Your task to perform on an android device: snooze an email in the gmail app Image 0: 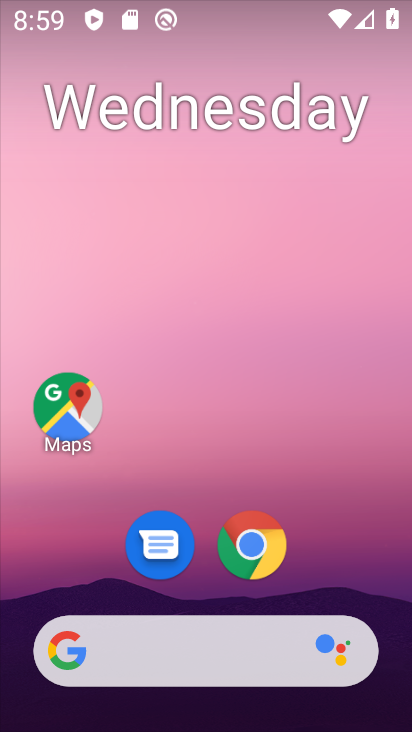
Step 0: drag from (382, 606) to (319, 128)
Your task to perform on an android device: snooze an email in the gmail app Image 1: 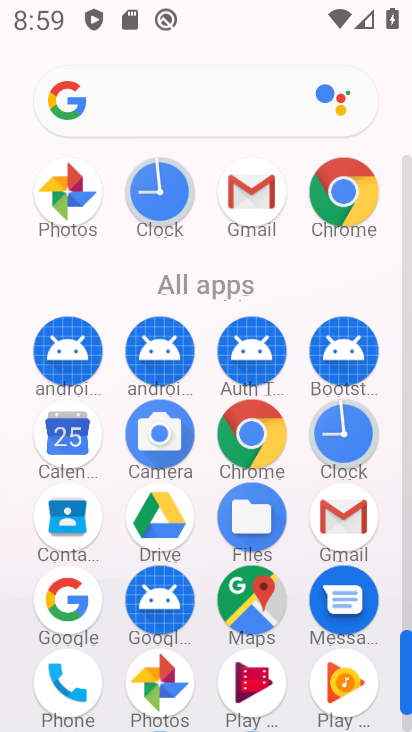
Step 1: click (263, 204)
Your task to perform on an android device: snooze an email in the gmail app Image 2: 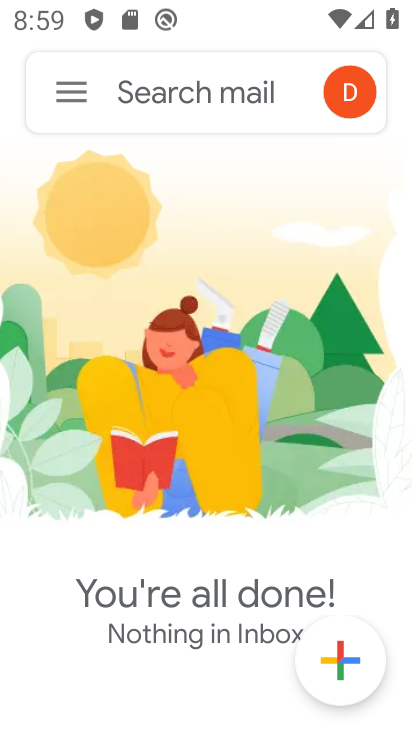
Step 2: click (69, 93)
Your task to perform on an android device: snooze an email in the gmail app Image 3: 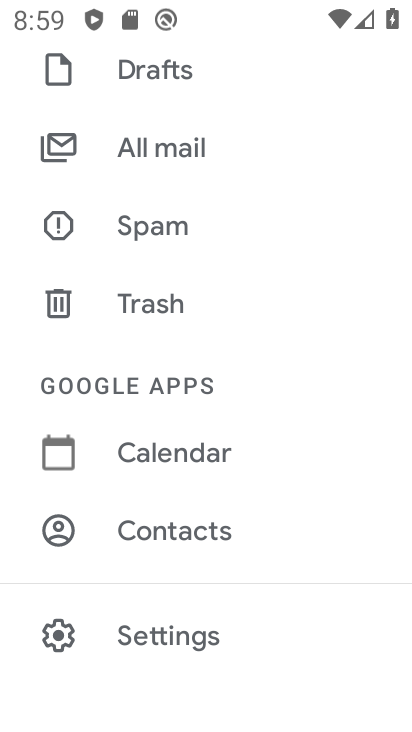
Step 3: drag from (216, 78) to (227, 607)
Your task to perform on an android device: snooze an email in the gmail app Image 4: 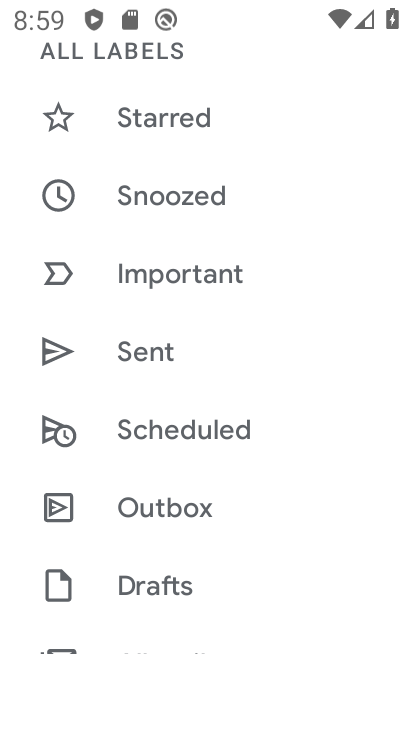
Step 4: drag from (186, 153) to (187, 701)
Your task to perform on an android device: snooze an email in the gmail app Image 5: 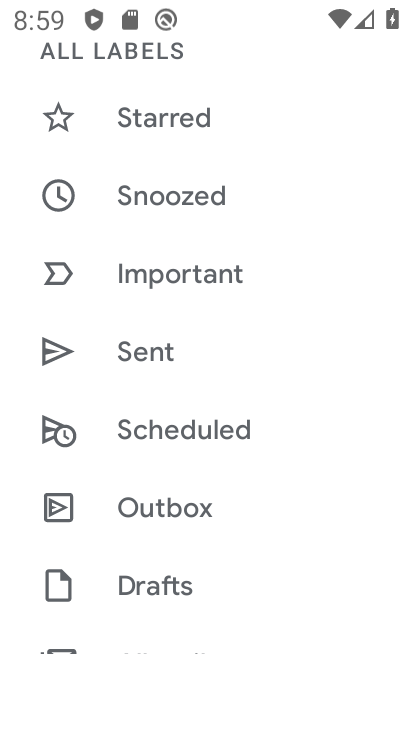
Step 5: drag from (184, 162) to (216, 634)
Your task to perform on an android device: snooze an email in the gmail app Image 6: 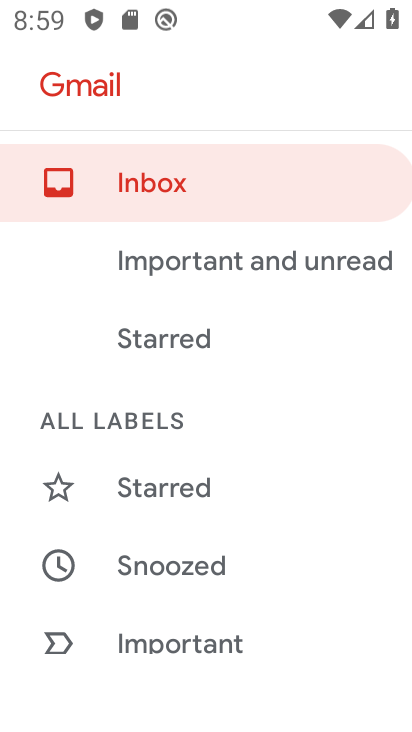
Step 6: click (173, 169)
Your task to perform on an android device: snooze an email in the gmail app Image 7: 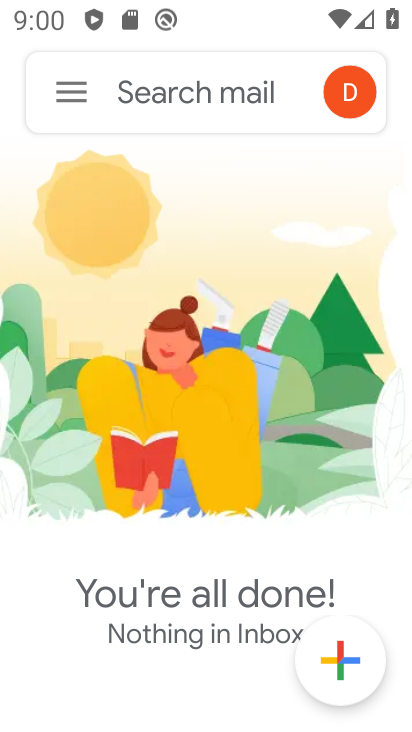
Step 7: task complete